Your task to perform on an android device: change notifications settings Image 0: 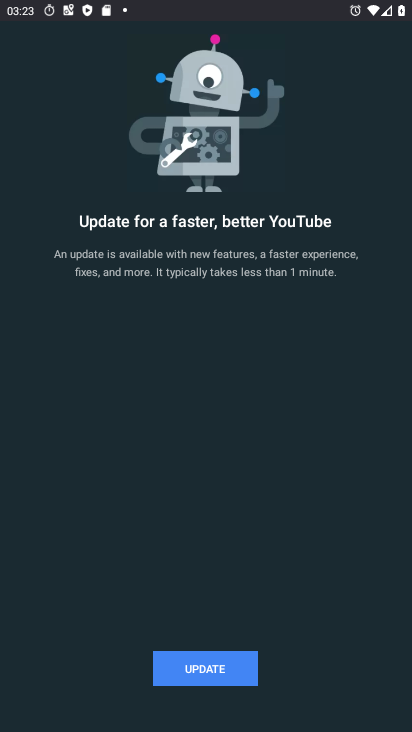
Step 0: press home button
Your task to perform on an android device: change notifications settings Image 1: 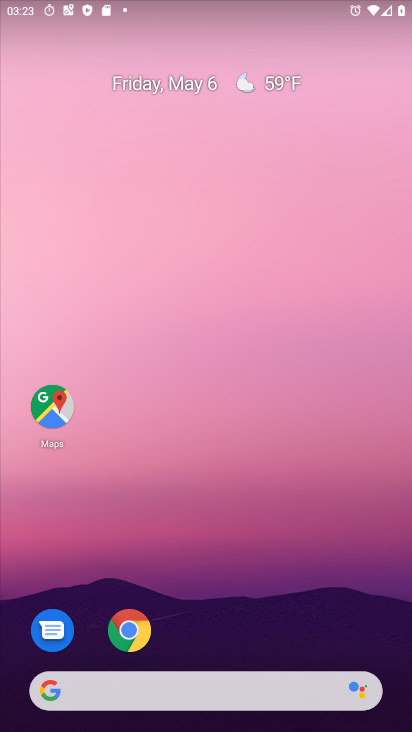
Step 1: drag from (259, 628) to (249, 192)
Your task to perform on an android device: change notifications settings Image 2: 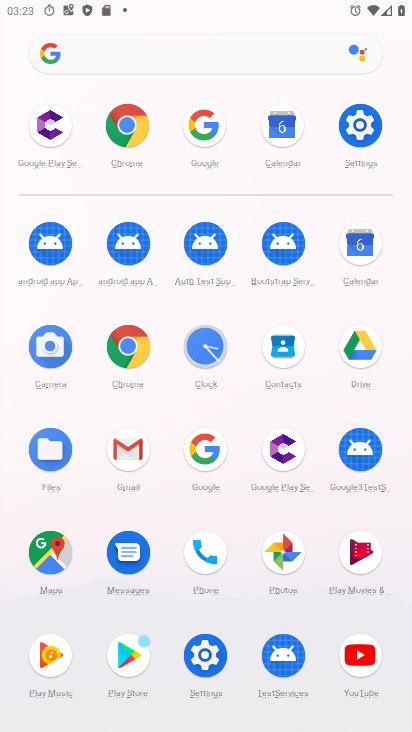
Step 2: click (351, 132)
Your task to perform on an android device: change notifications settings Image 3: 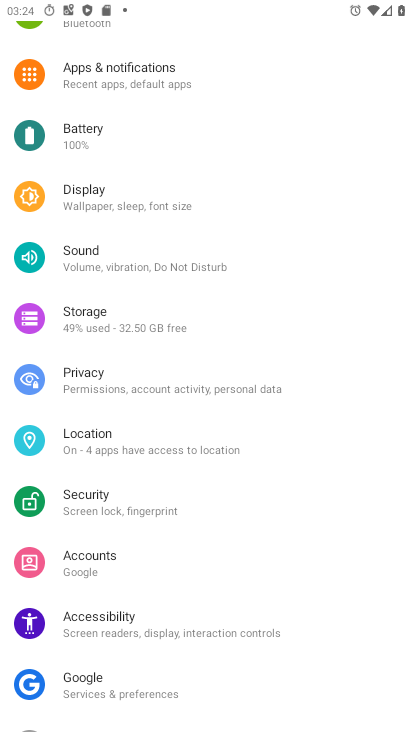
Step 3: click (156, 87)
Your task to perform on an android device: change notifications settings Image 4: 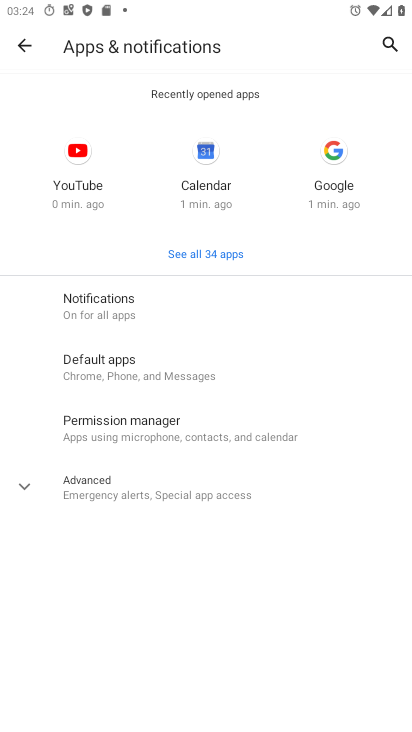
Step 4: click (126, 301)
Your task to perform on an android device: change notifications settings Image 5: 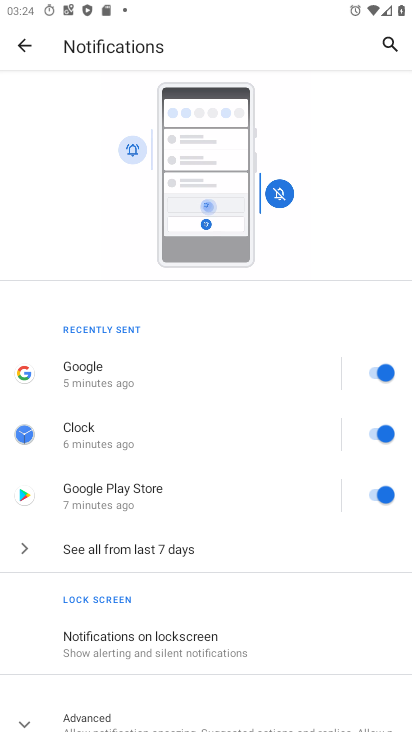
Step 5: drag from (176, 682) to (187, 513)
Your task to perform on an android device: change notifications settings Image 6: 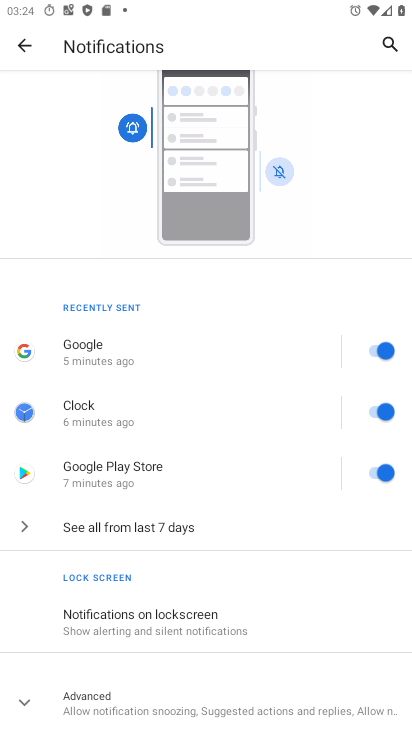
Step 6: click (170, 608)
Your task to perform on an android device: change notifications settings Image 7: 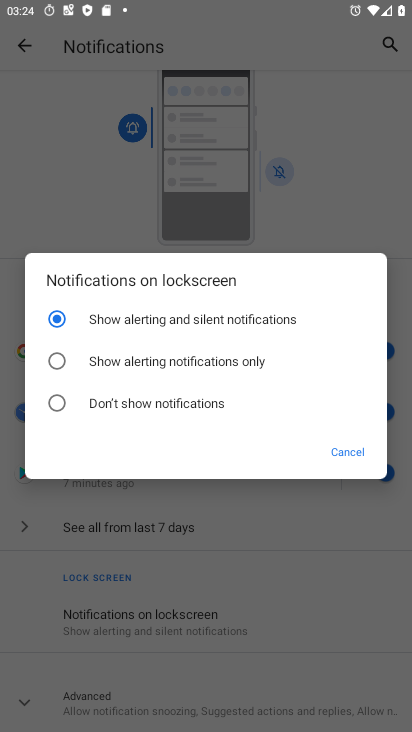
Step 7: click (203, 400)
Your task to perform on an android device: change notifications settings Image 8: 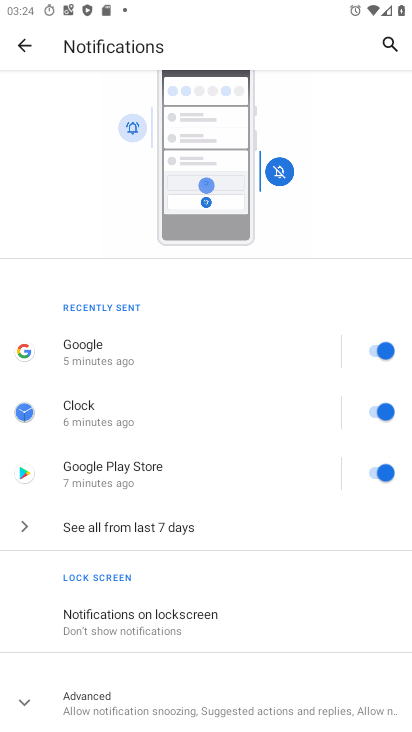
Step 8: task complete